Your task to perform on an android device: Open Chrome and go to settings Image 0: 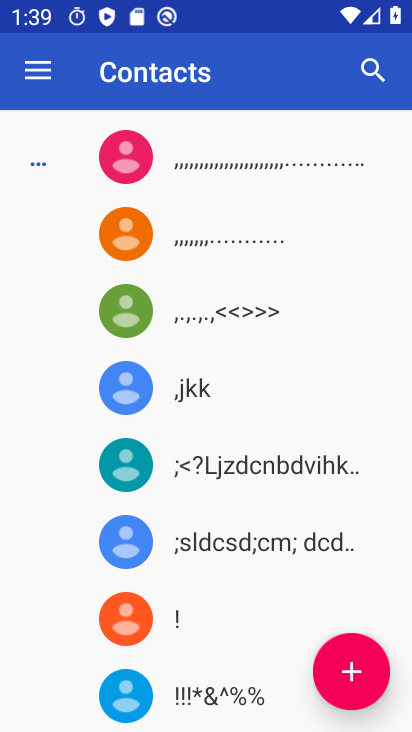
Step 0: press home button
Your task to perform on an android device: Open Chrome and go to settings Image 1: 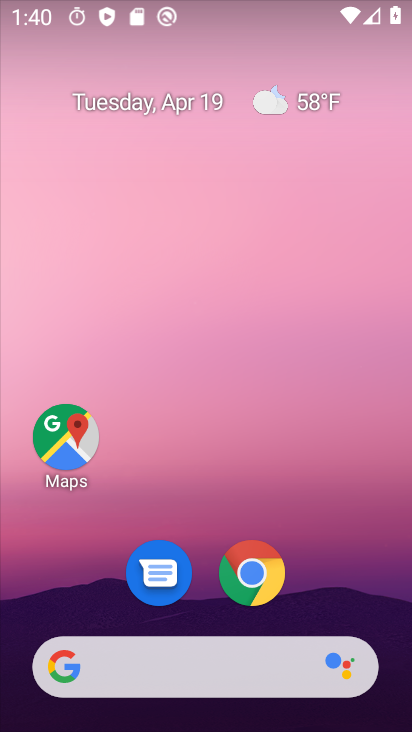
Step 1: drag from (324, 563) to (270, 63)
Your task to perform on an android device: Open Chrome and go to settings Image 2: 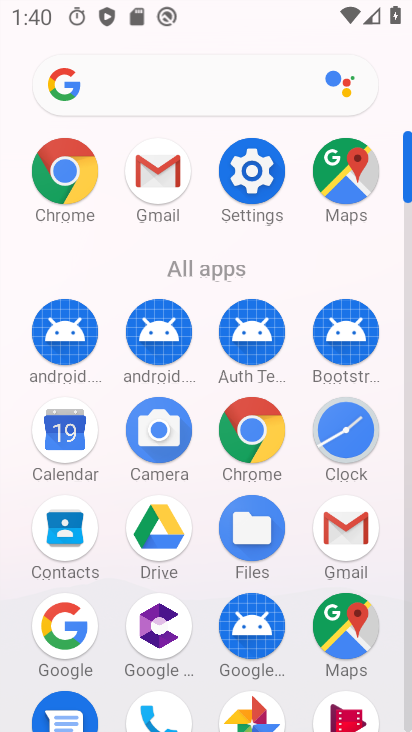
Step 2: click (55, 193)
Your task to perform on an android device: Open Chrome and go to settings Image 3: 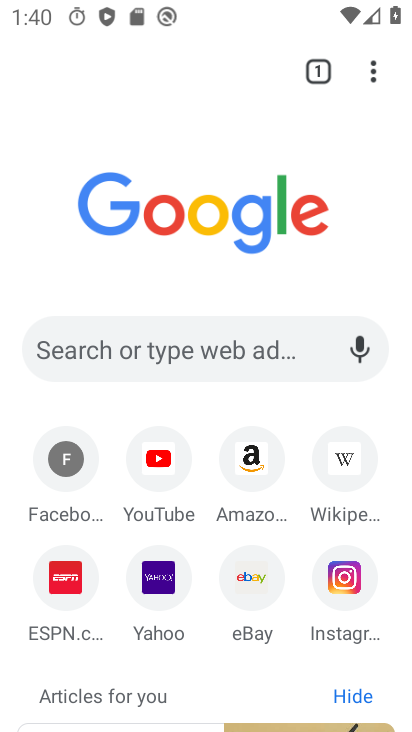
Step 3: drag from (367, 77) to (150, 597)
Your task to perform on an android device: Open Chrome and go to settings Image 4: 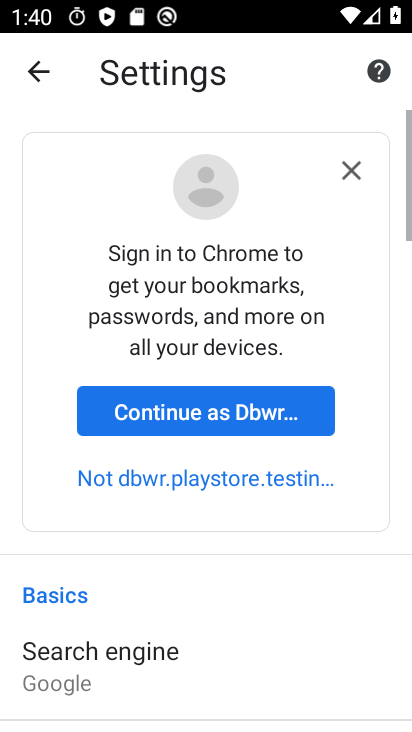
Step 4: drag from (162, 595) to (194, 218)
Your task to perform on an android device: Open Chrome and go to settings Image 5: 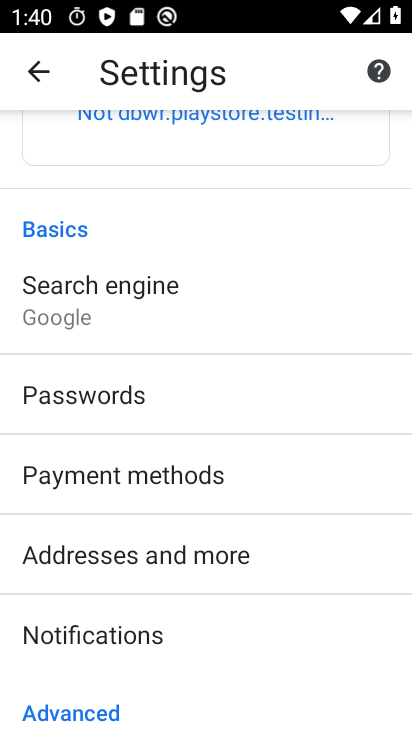
Step 5: drag from (287, 568) to (270, 205)
Your task to perform on an android device: Open Chrome and go to settings Image 6: 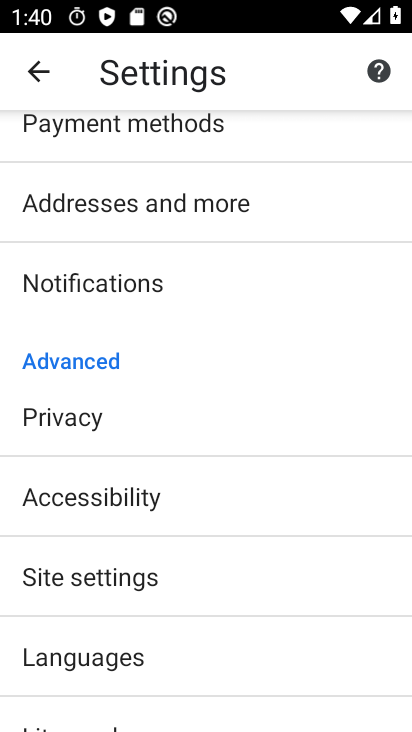
Step 6: drag from (196, 635) to (235, 267)
Your task to perform on an android device: Open Chrome and go to settings Image 7: 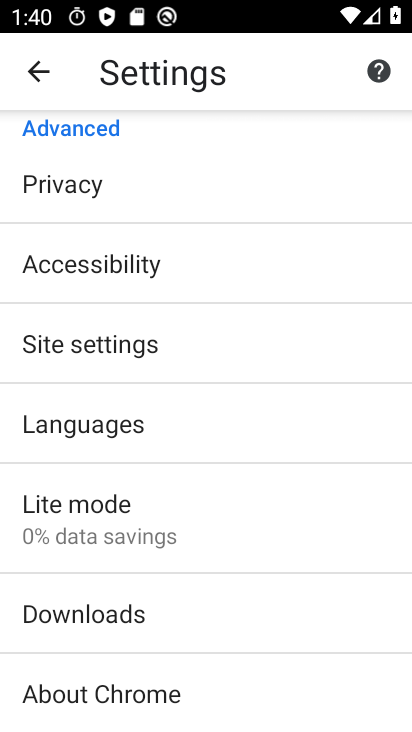
Step 7: drag from (147, 631) to (171, 217)
Your task to perform on an android device: Open Chrome and go to settings Image 8: 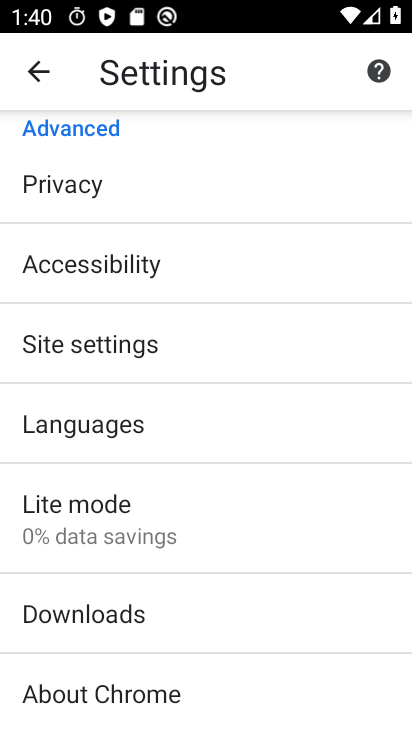
Step 8: drag from (184, 254) to (238, 550)
Your task to perform on an android device: Open Chrome and go to settings Image 9: 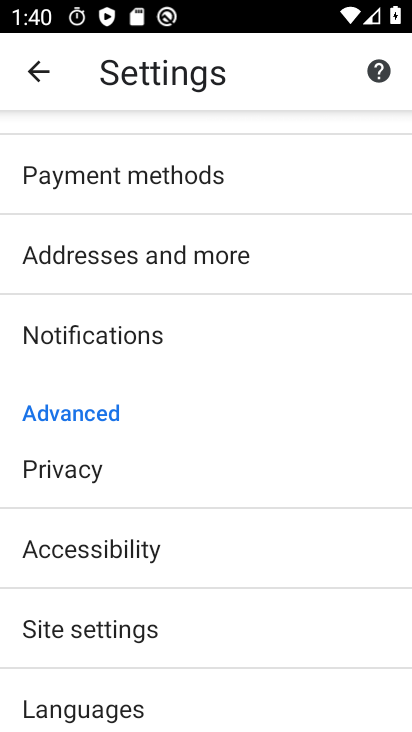
Step 9: drag from (204, 313) to (194, 644)
Your task to perform on an android device: Open Chrome and go to settings Image 10: 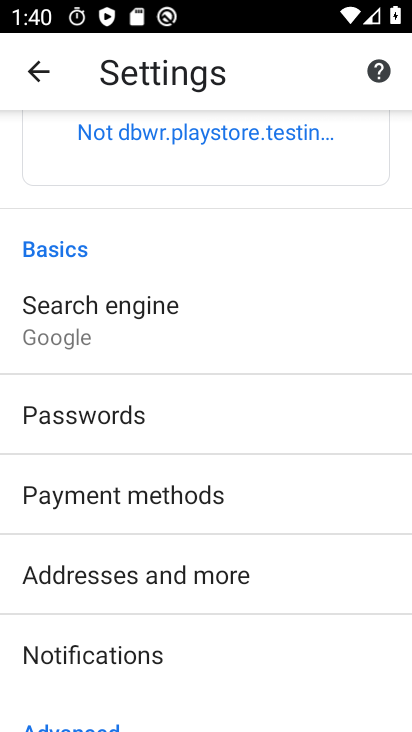
Step 10: drag from (228, 264) to (239, 562)
Your task to perform on an android device: Open Chrome and go to settings Image 11: 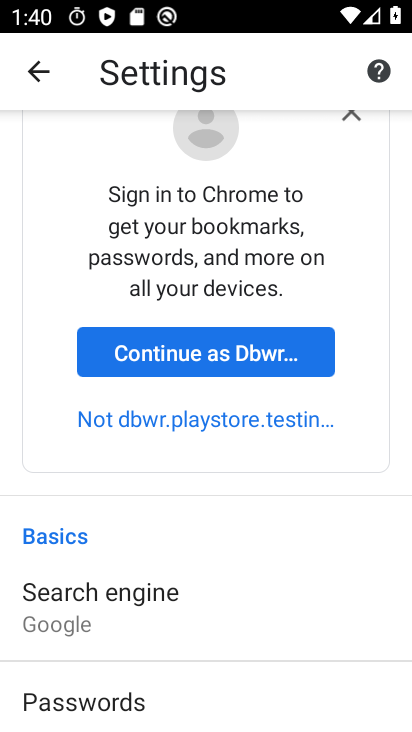
Step 11: drag from (263, 515) to (282, 666)
Your task to perform on an android device: Open Chrome and go to settings Image 12: 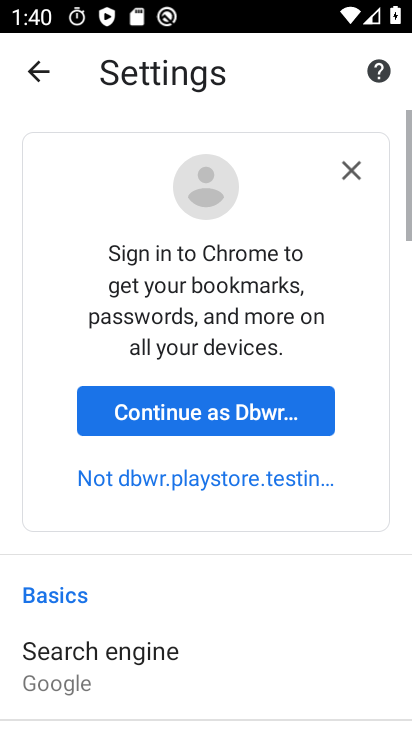
Step 12: click (200, 216)
Your task to perform on an android device: Open Chrome and go to settings Image 13: 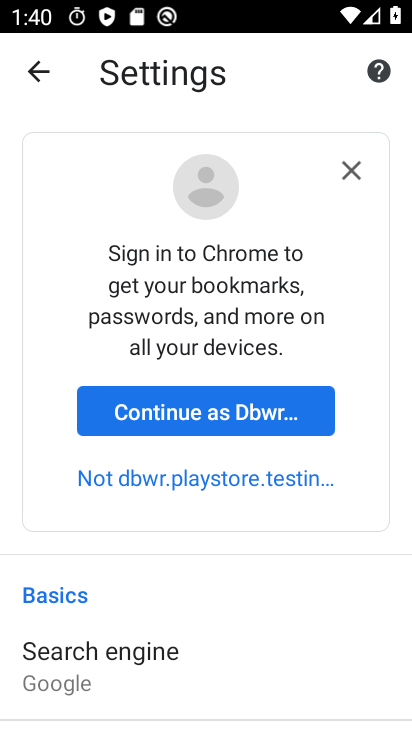
Step 13: task complete